Your task to perform on an android device: Go to CNN.com Image 0: 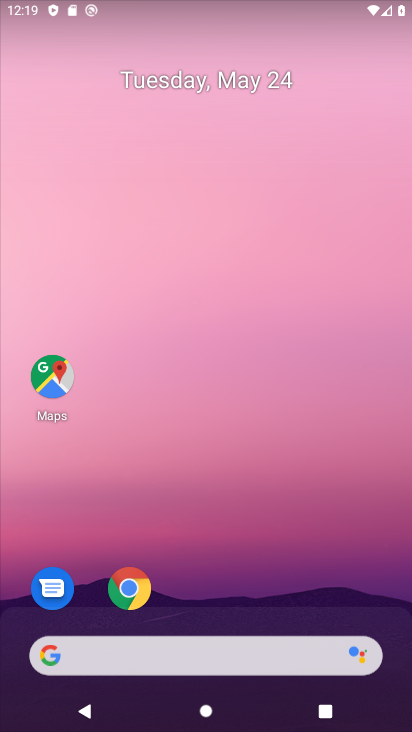
Step 0: click (141, 671)
Your task to perform on an android device: Go to CNN.com Image 1: 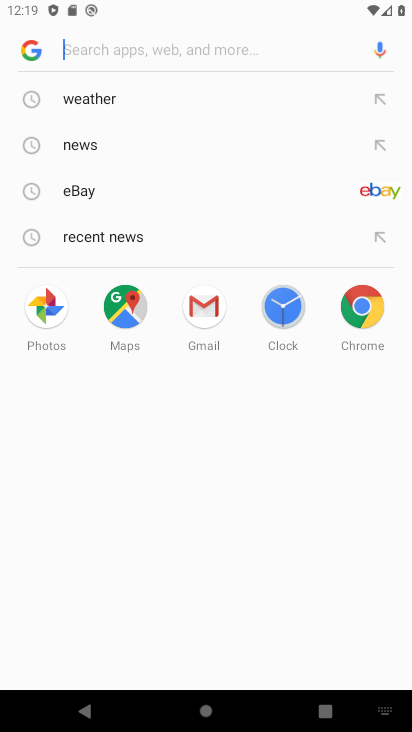
Step 1: type "CNN.com"
Your task to perform on an android device: Go to CNN.com Image 2: 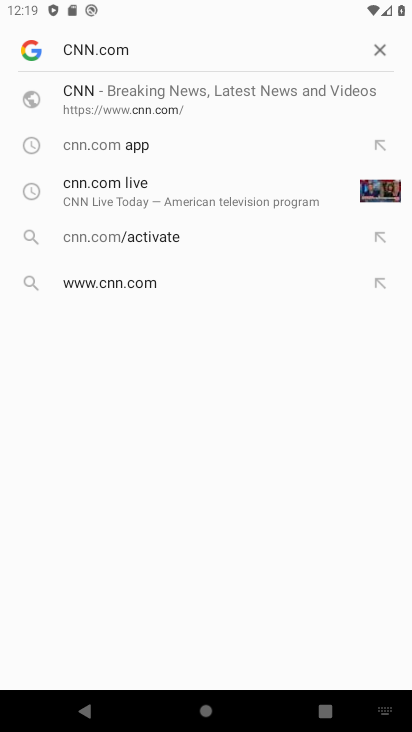
Step 2: click (189, 98)
Your task to perform on an android device: Go to CNN.com Image 3: 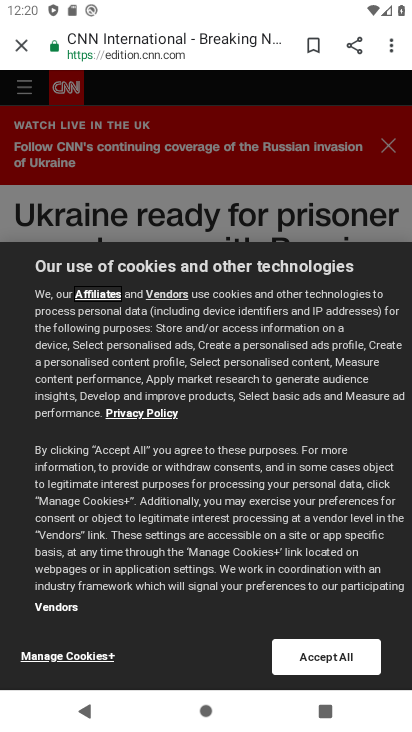
Step 3: click (343, 657)
Your task to perform on an android device: Go to CNN.com Image 4: 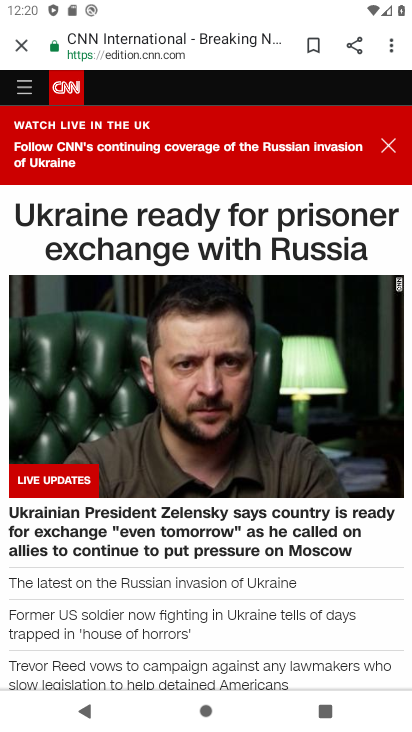
Step 4: task complete